Your task to perform on an android device: What's US dollar exchange rateagainst the Mexican Peso? Image 0: 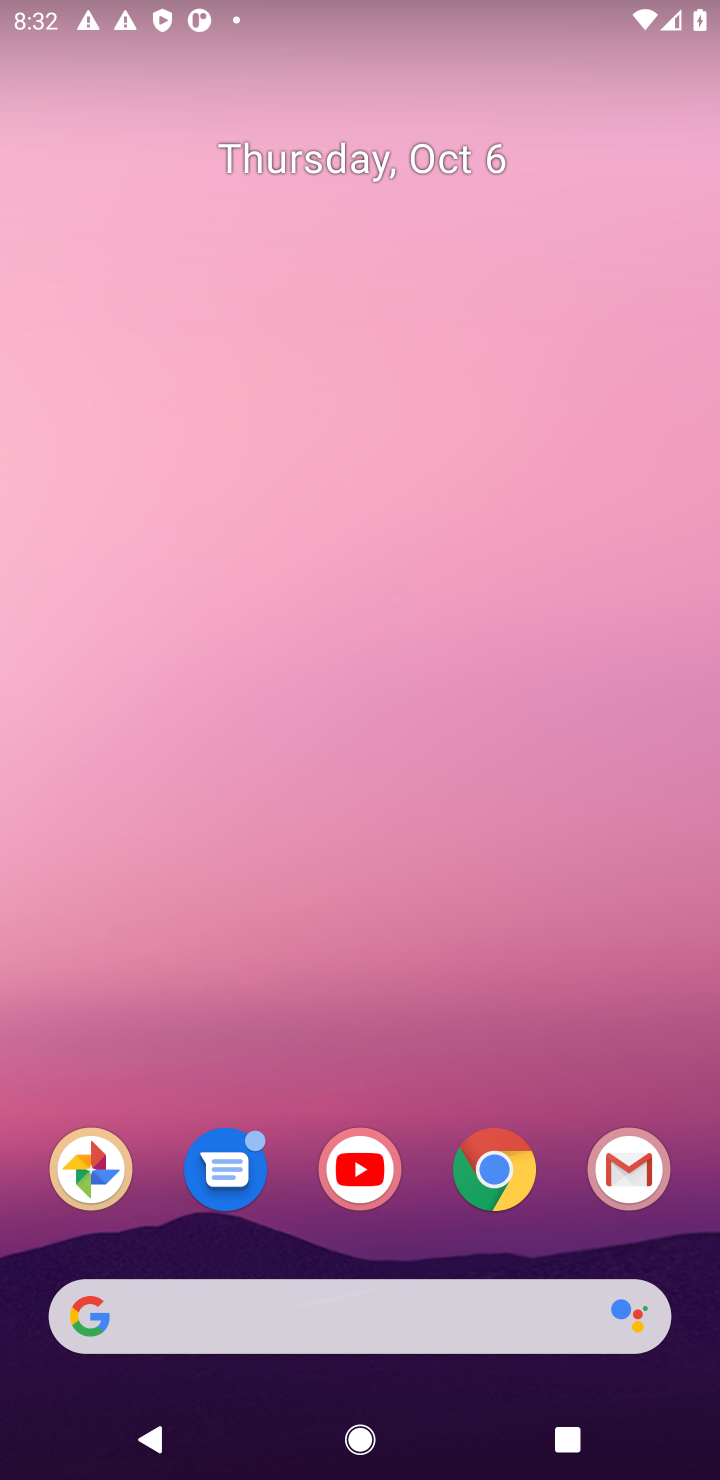
Step 0: drag from (275, 1267) to (408, 17)
Your task to perform on an android device: What's US dollar exchange rateagainst the Mexican Peso? Image 1: 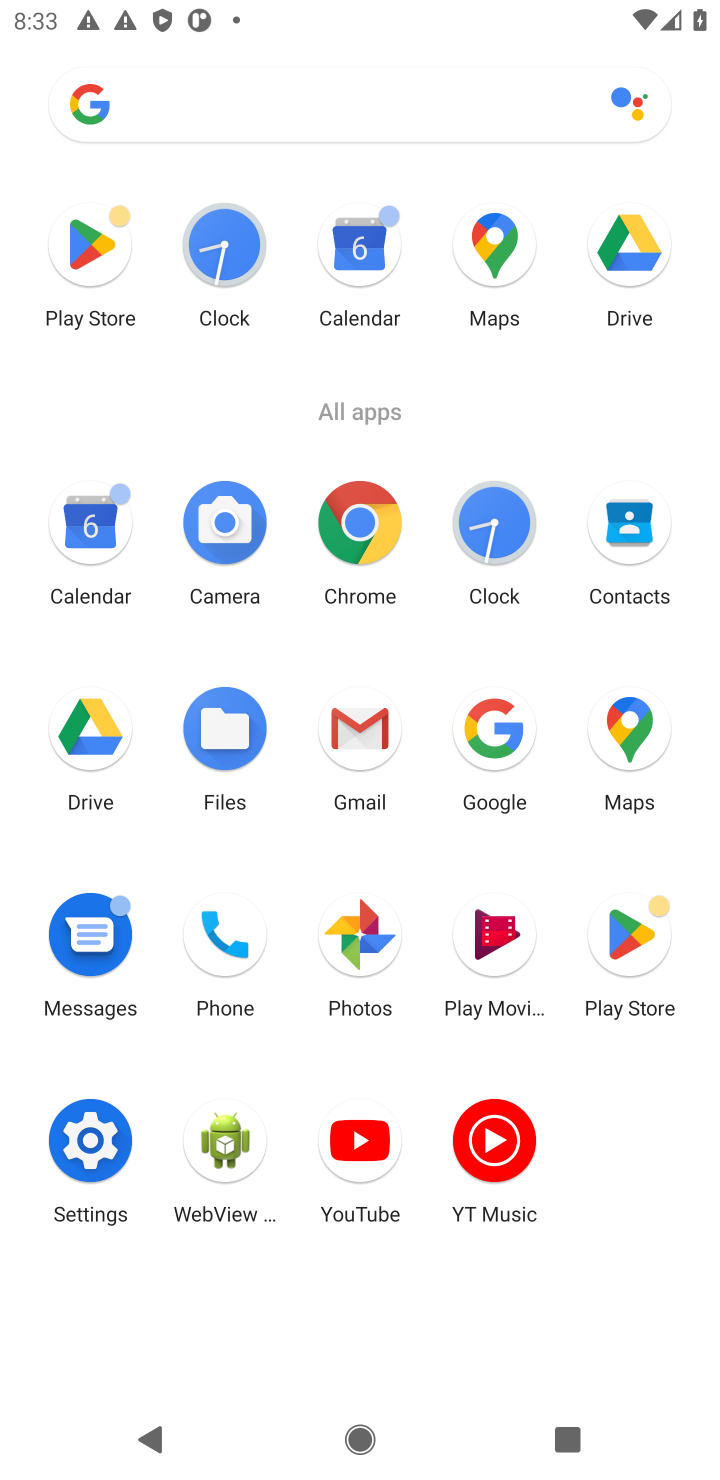
Step 1: click (367, 533)
Your task to perform on an android device: What's US dollar exchange rateagainst the Mexican Peso? Image 2: 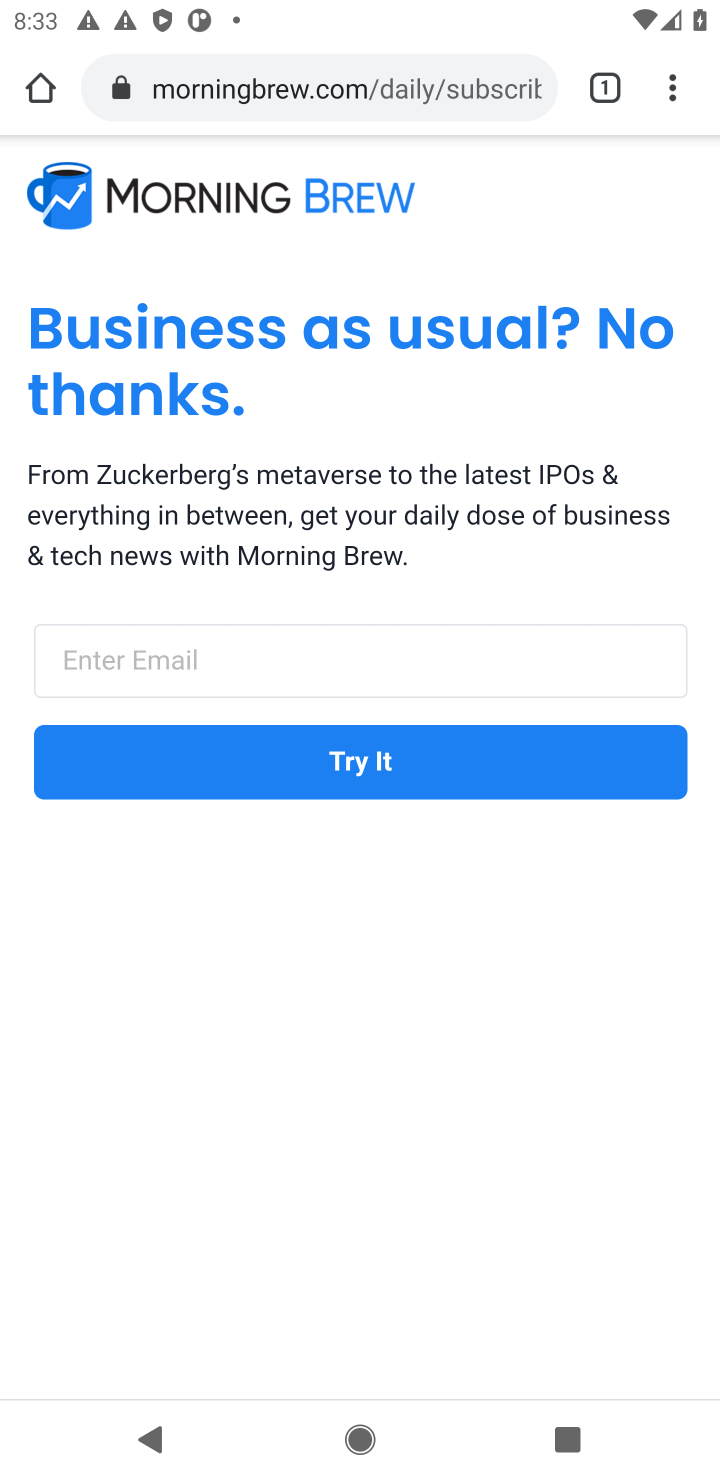
Step 2: click (492, 83)
Your task to perform on an android device: What's US dollar exchange rateagainst the Mexican Peso? Image 3: 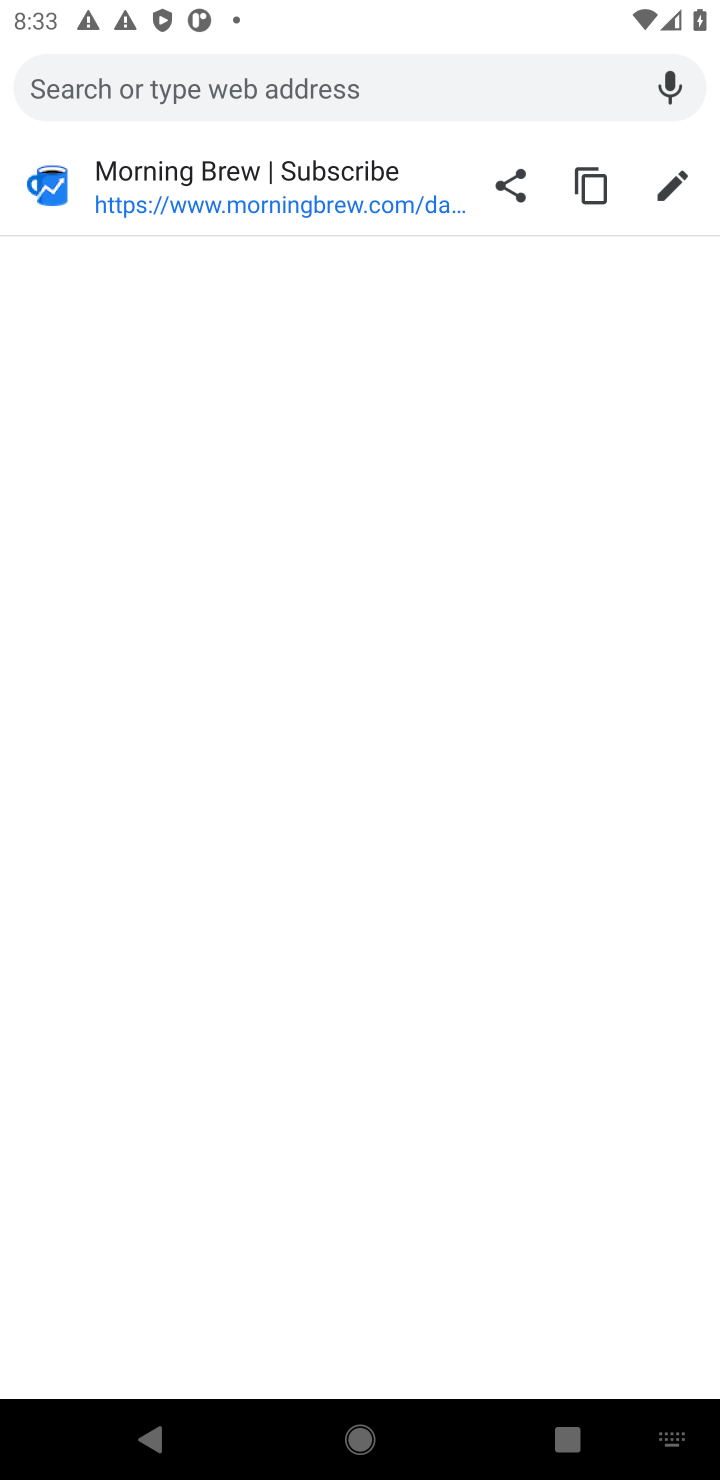
Step 3: click (331, 88)
Your task to perform on an android device: What's US dollar exchange rateagainst the Mexican Peso? Image 4: 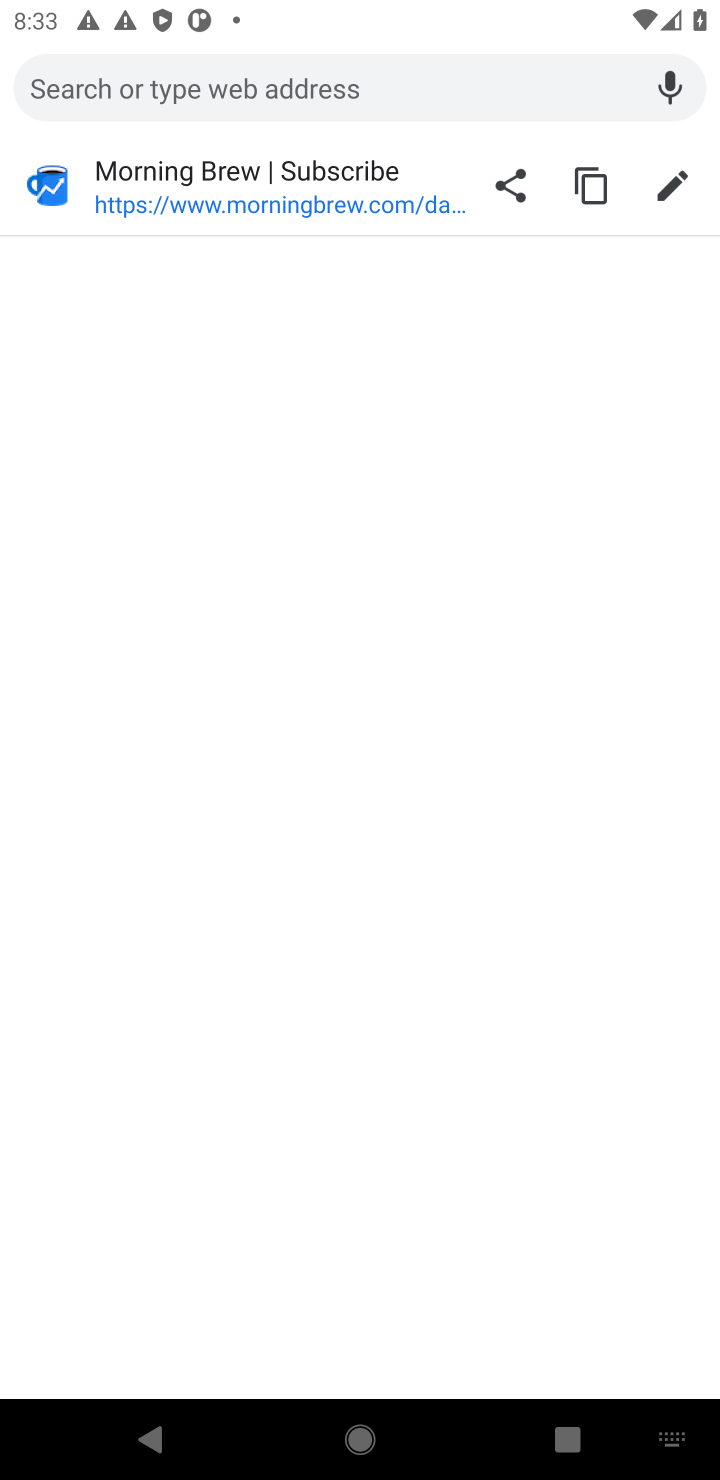
Step 4: type "What's US dollar exchange rateagainst the Mexican Peso"
Your task to perform on an android device: What's US dollar exchange rateagainst the Mexican Peso? Image 5: 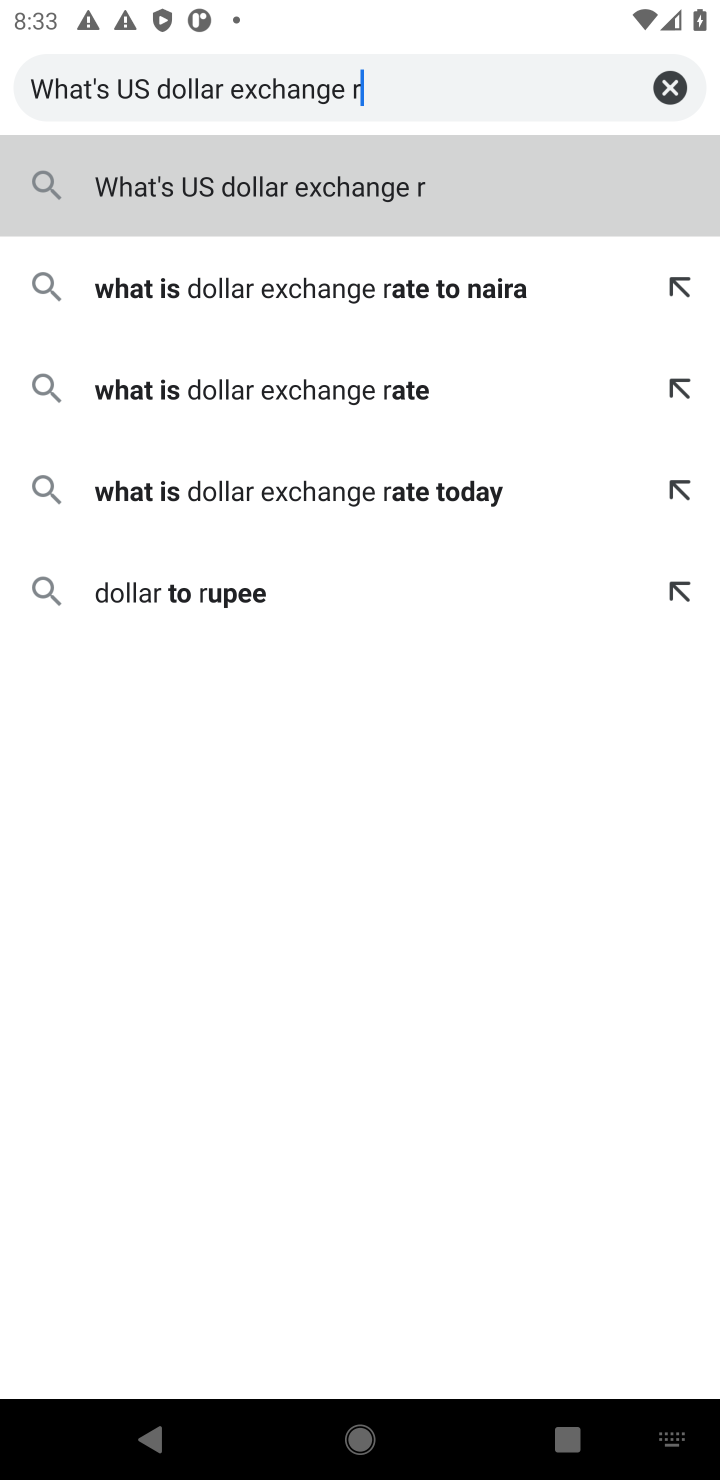
Step 5: click (666, 88)
Your task to perform on an android device: What's US dollar exchange rateagainst the Mexican Peso? Image 6: 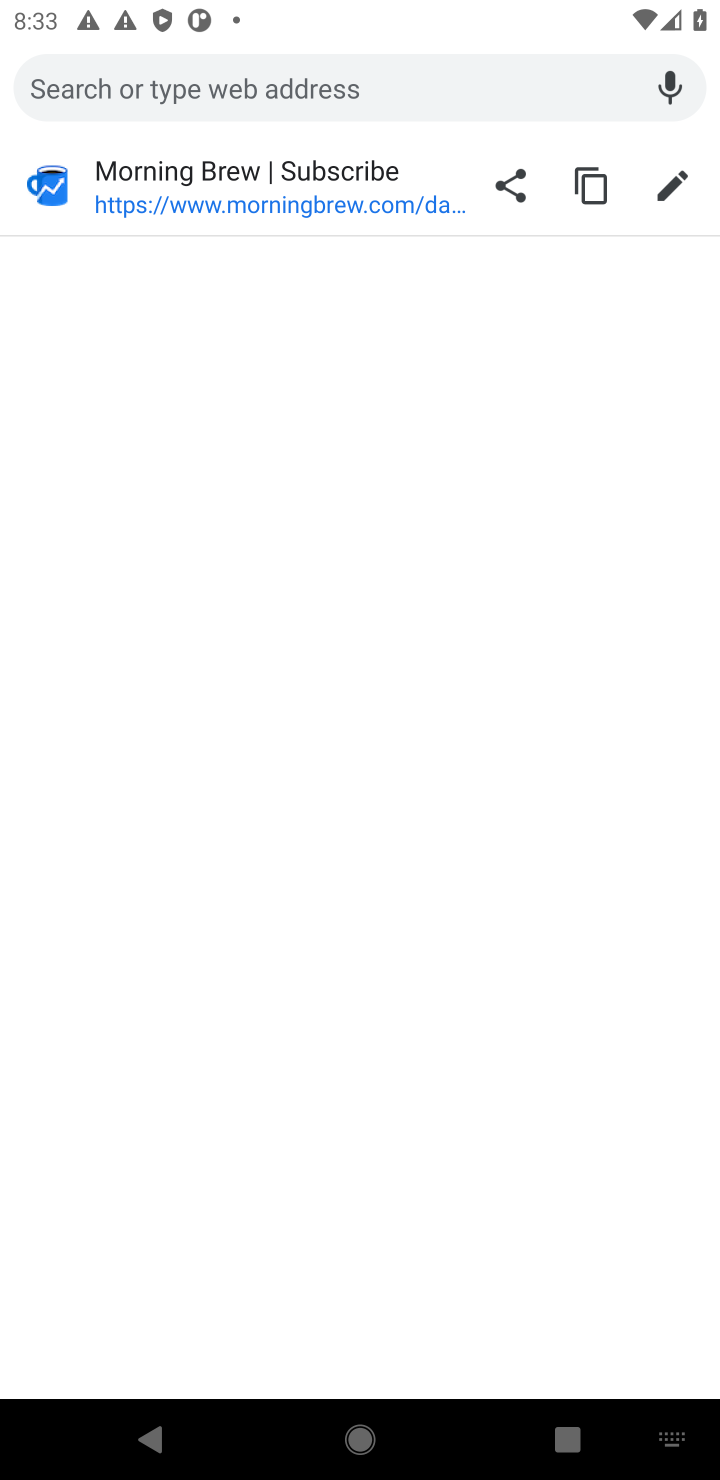
Step 6: press back button
Your task to perform on an android device: What's US dollar exchange rateagainst the Mexican Peso? Image 7: 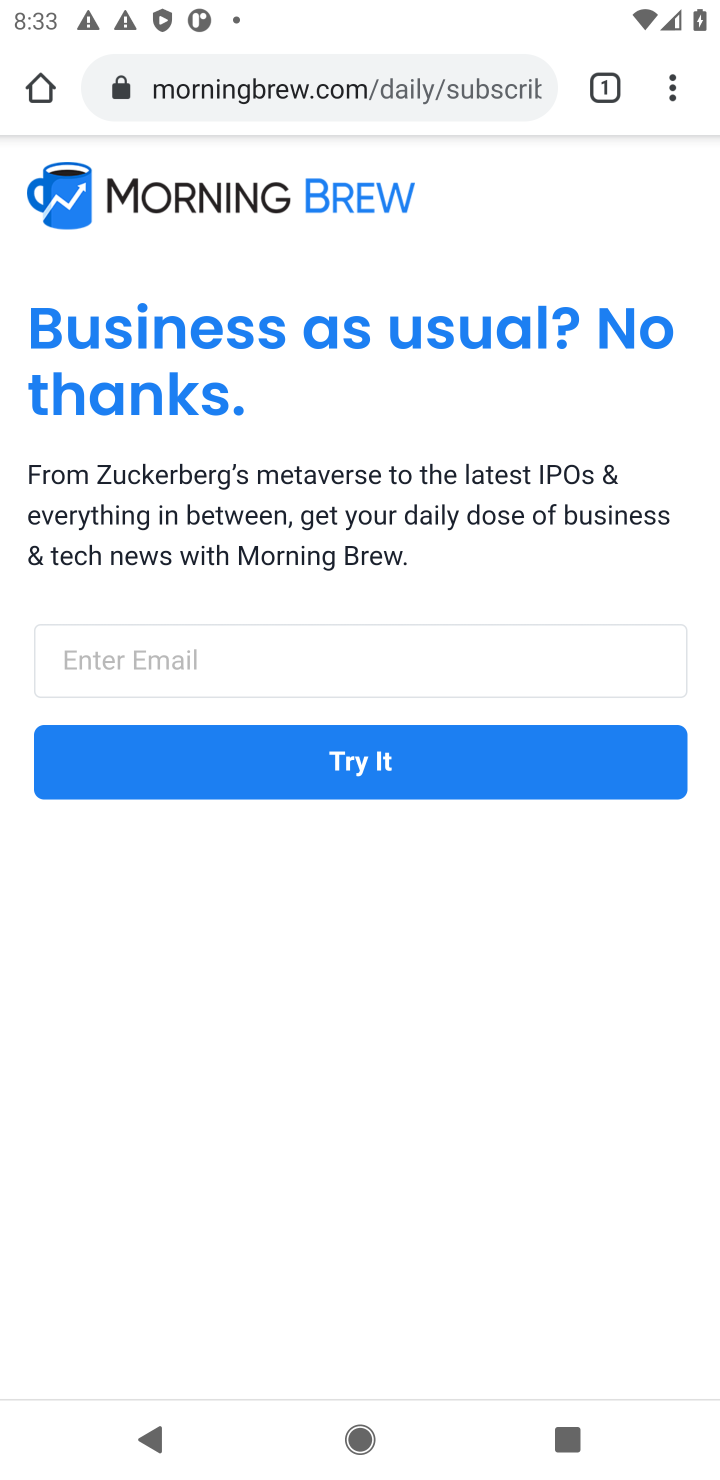
Step 7: press back button
Your task to perform on an android device: What's US dollar exchange rateagainst the Mexican Peso? Image 8: 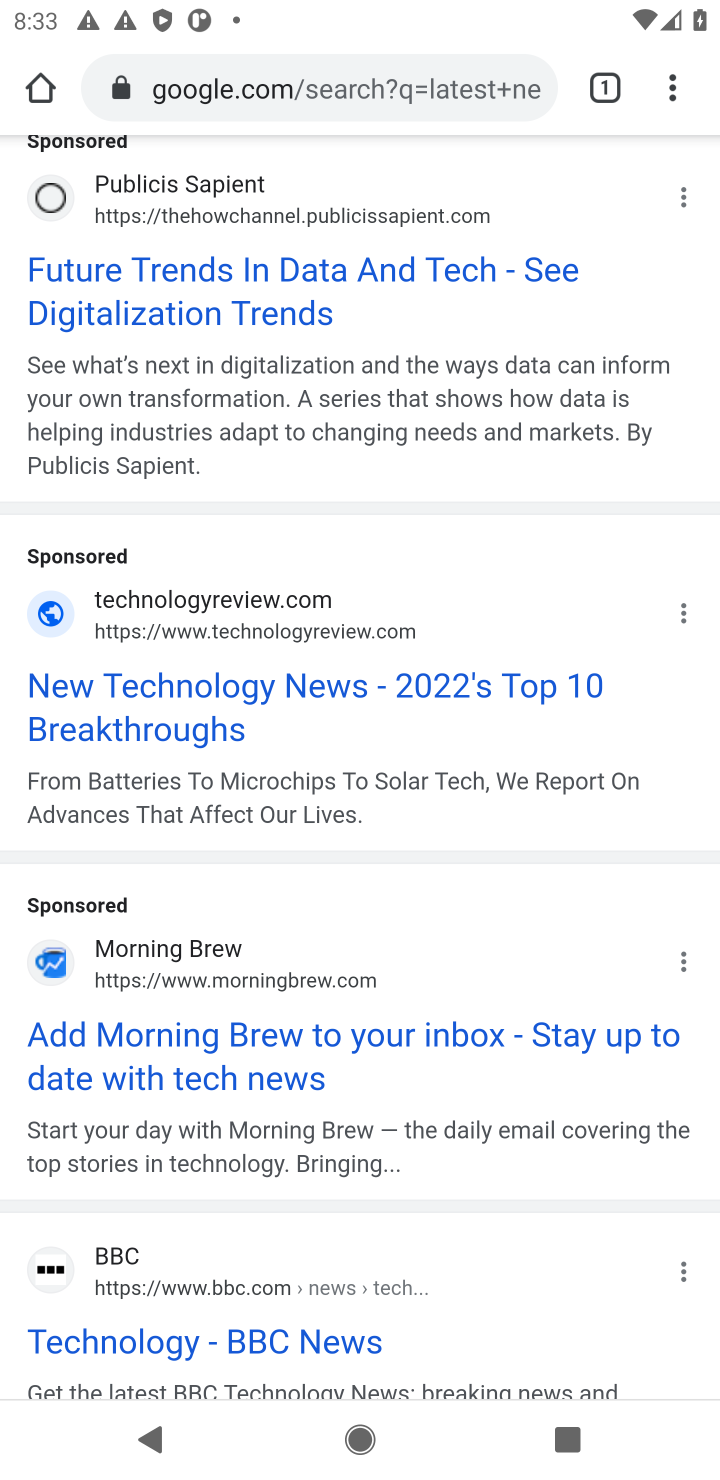
Step 8: drag from (386, 515) to (405, 1471)
Your task to perform on an android device: What's US dollar exchange rateagainst the Mexican Peso? Image 9: 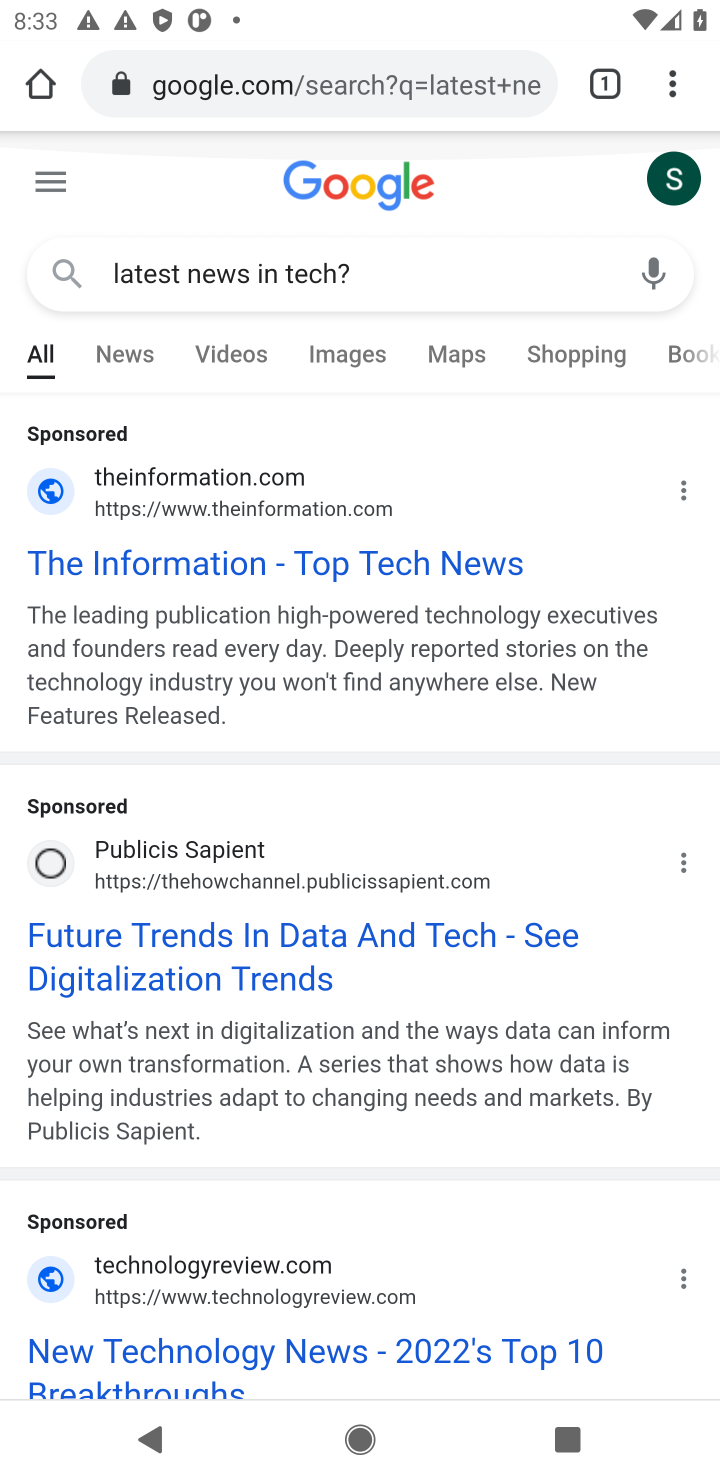
Step 9: click (475, 270)
Your task to perform on an android device: What's US dollar exchange rateagainst the Mexican Peso? Image 10: 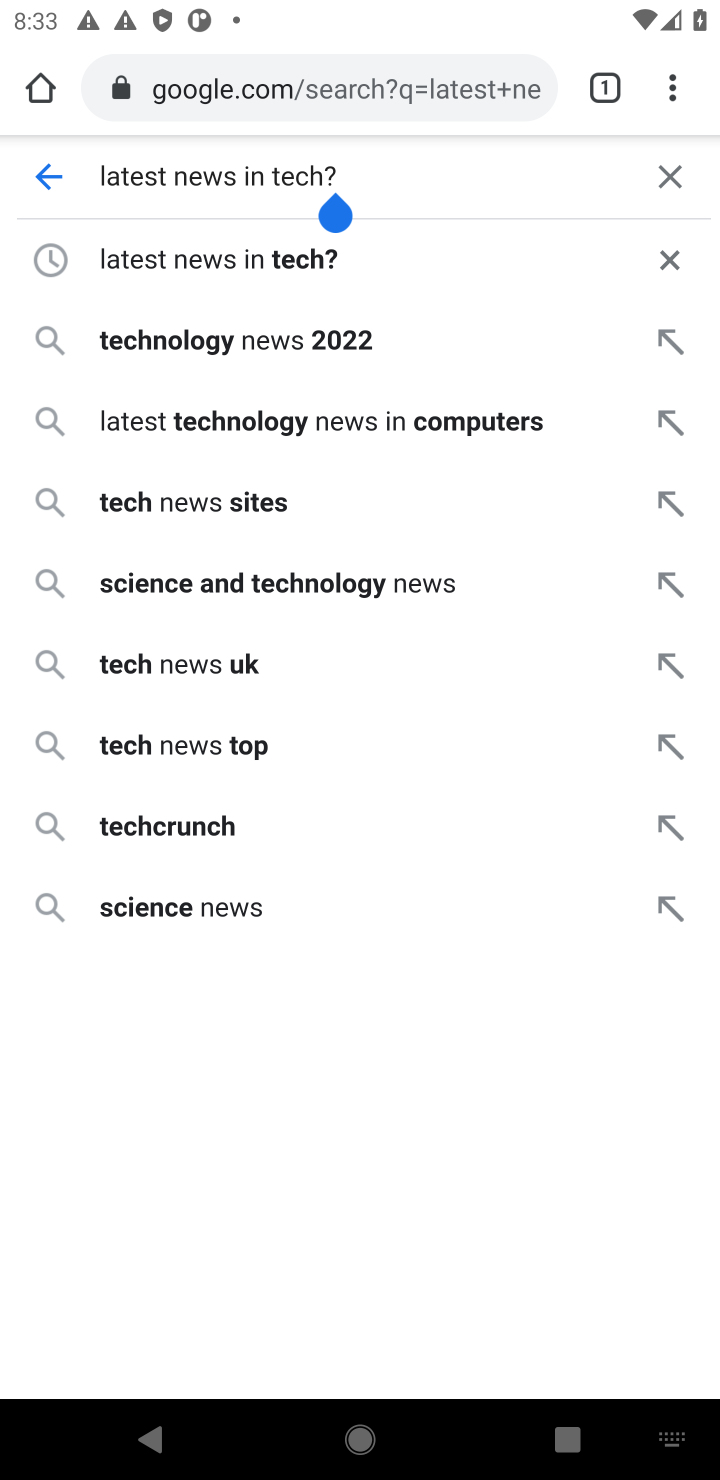
Step 10: click (674, 167)
Your task to perform on an android device: What's US dollar exchange rateagainst the Mexican Peso? Image 11: 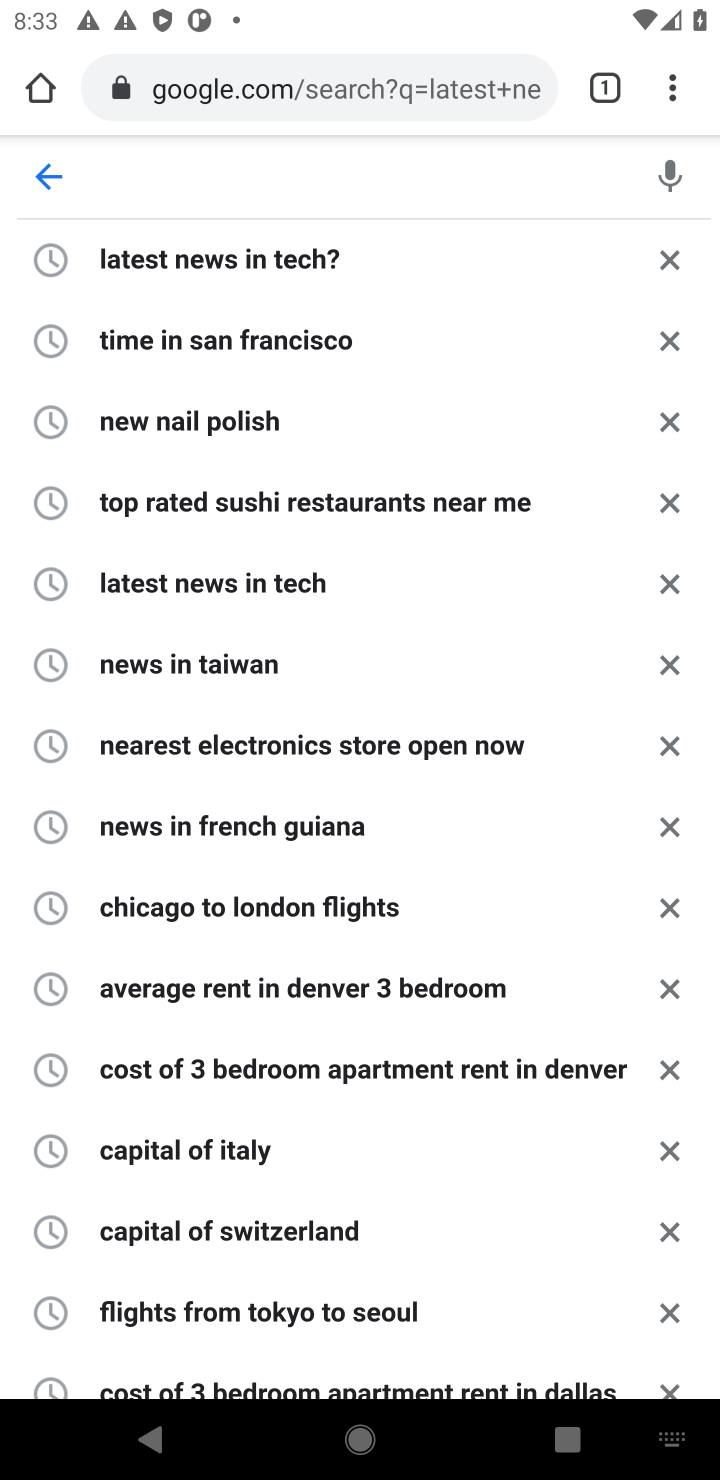
Step 11: type "What's US dollar exchange rateagainst the Mexican Peso"
Your task to perform on an android device: What's US dollar exchange rateagainst the Mexican Peso? Image 12: 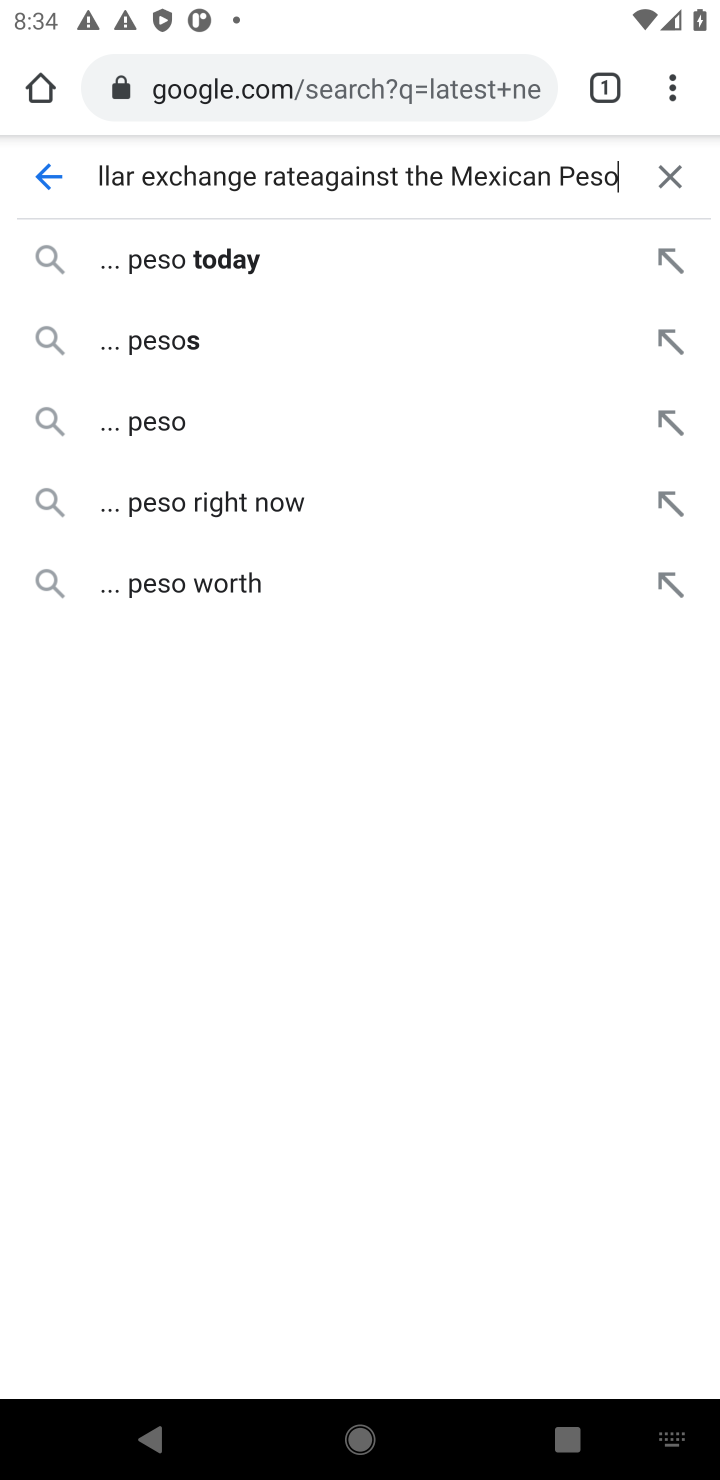
Step 12: click (152, 425)
Your task to perform on an android device: What's US dollar exchange rateagainst the Mexican Peso? Image 13: 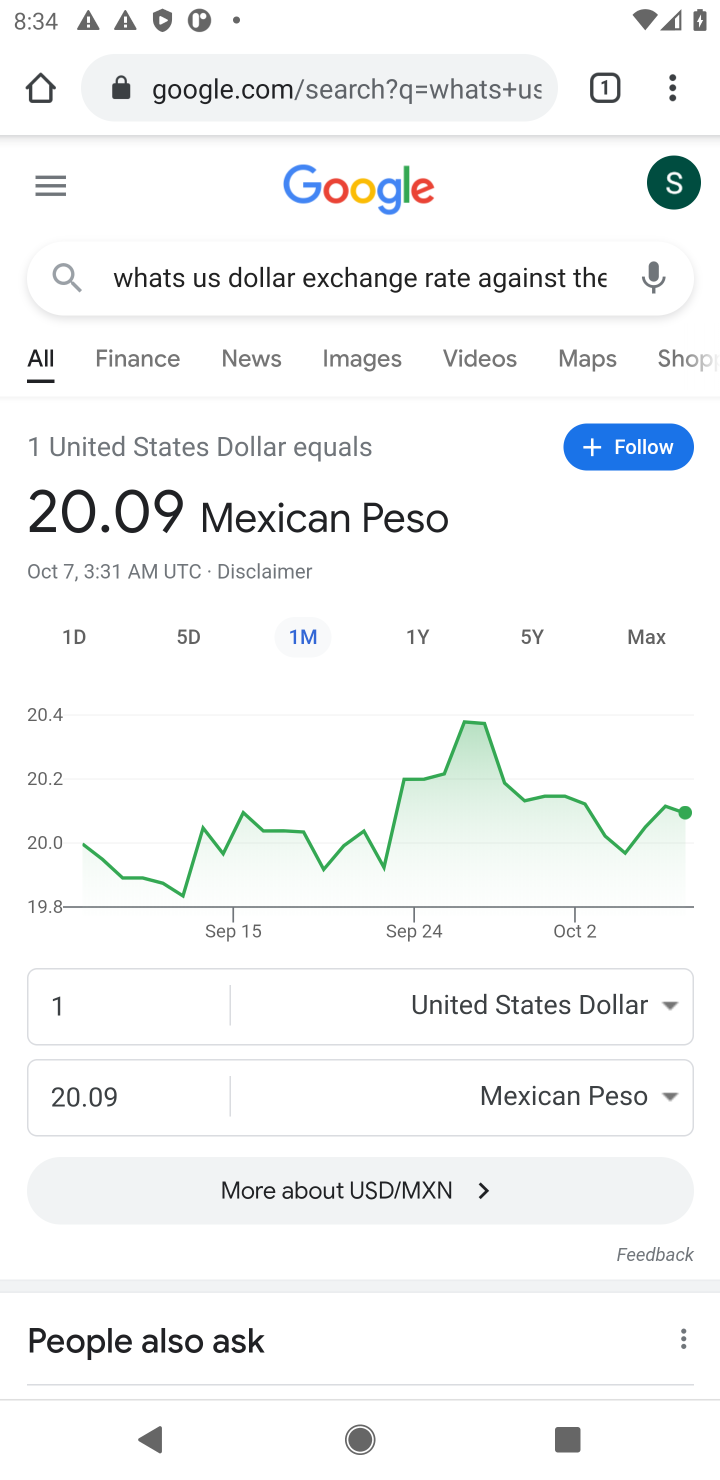
Step 13: task complete